Your task to perform on an android device: turn on javascript in the chrome app Image 0: 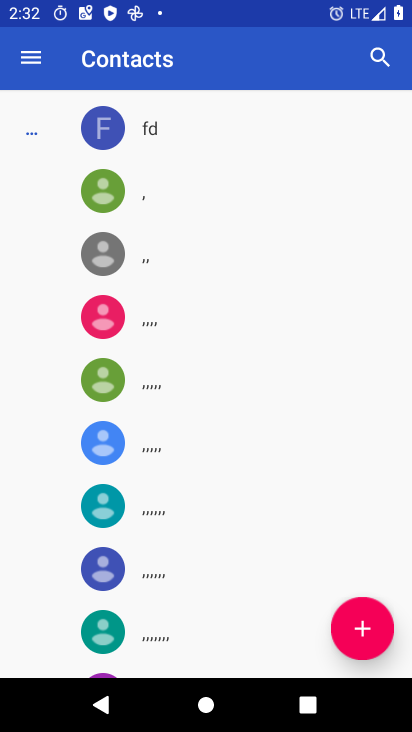
Step 0: press home button
Your task to perform on an android device: turn on javascript in the chrome app Image 1: 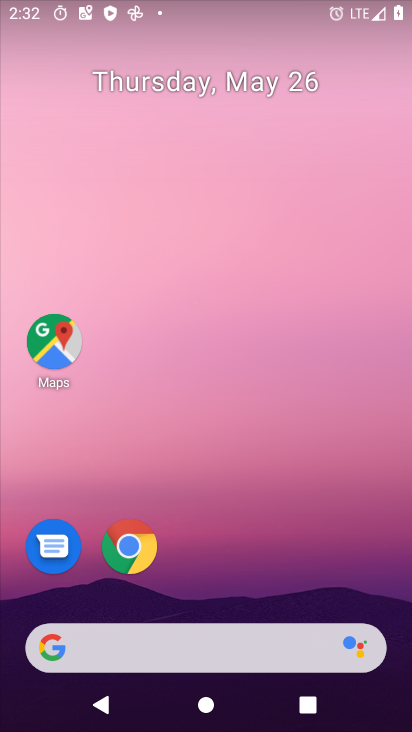
Step 1: click (129, 545)
Your task to perform on an android device: turn on javascript in the chrome app Image 2: 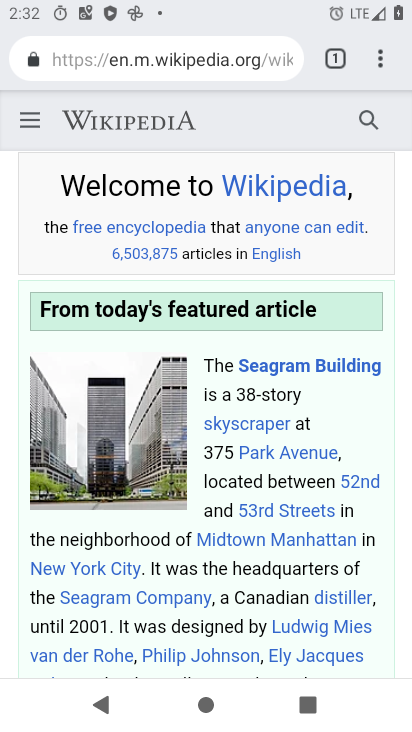
Step 2: click (370, 59)
Your task to perform on an android device: turn on javascript in the chrome app Image 3: 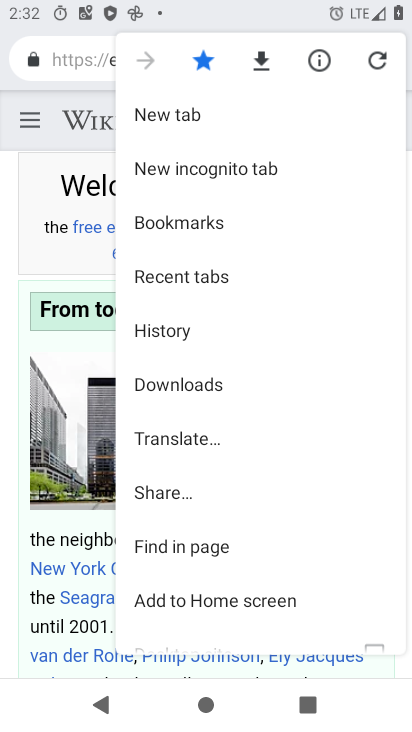
Step 3: drag from (270, 542) to (303, 279)
Your task to perform on an android device: turn on javascript in the chrome app Image 4: 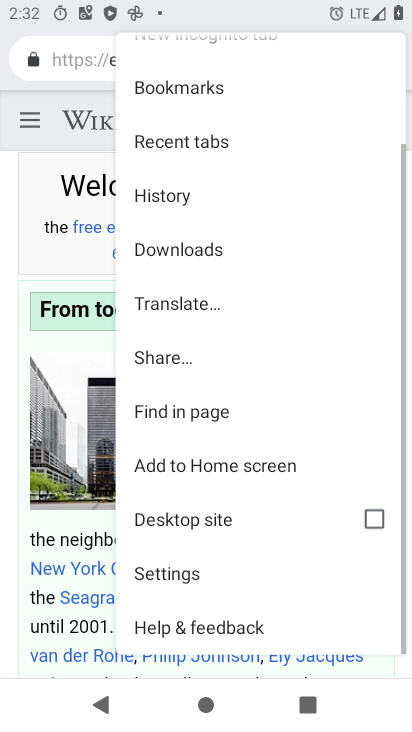
Step 4: click (186, 563)
Your task to perform on an android device: turn on javascript in the chrome app Image 5: 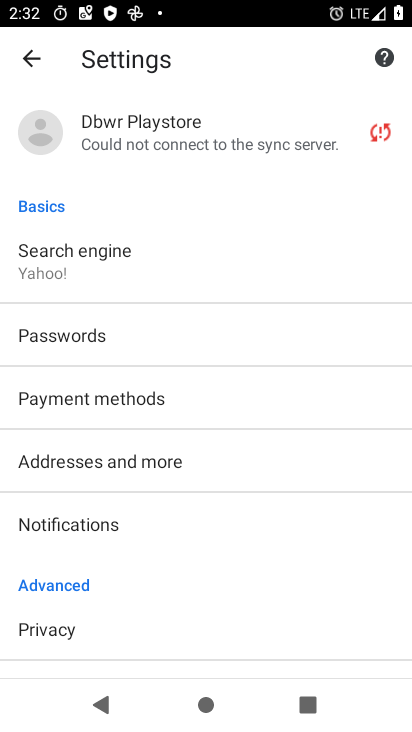
Step 5: drag from (179, 660) to (220, 291)
Your task to perform on an android device: turn on javascript in the chrome app Image 6: 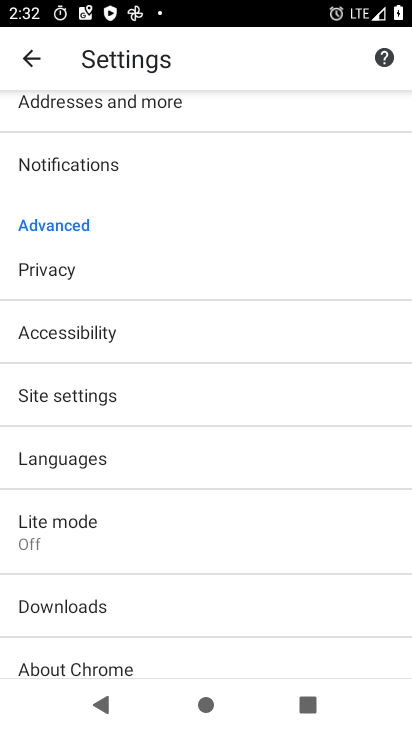
Step 6: click (101, 399)
Your task to perform on an android device: turn on javascript in the chrome app Image 7: 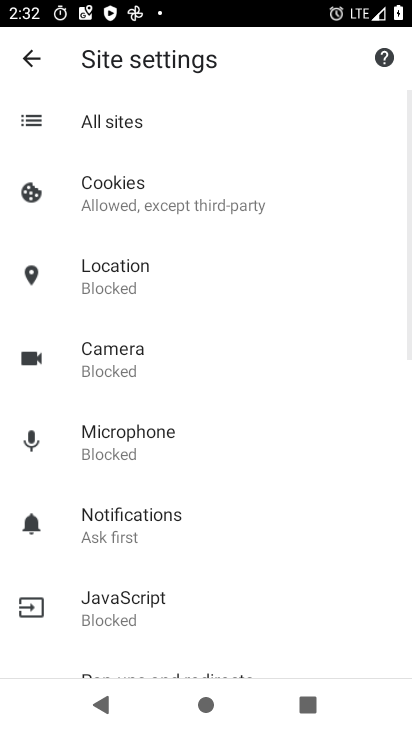
Step 7: click (158, 618)
Your task to perform on an android device: turn on javascript in the chrome app Image 8: 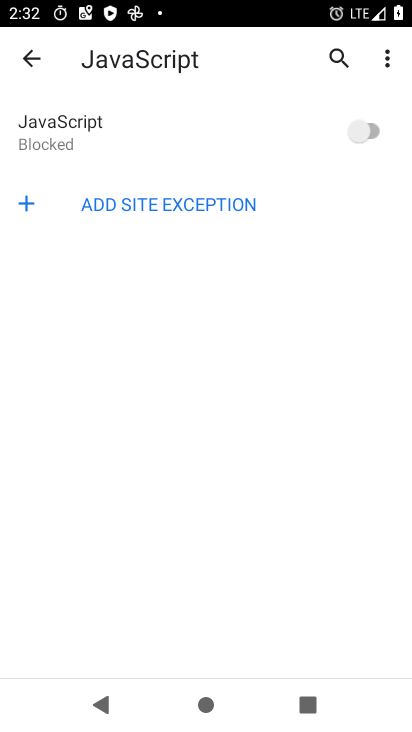
Step 8: click (384, 126)
Your task to perform on an android device: turn on javascript in the chrome app Image 9: 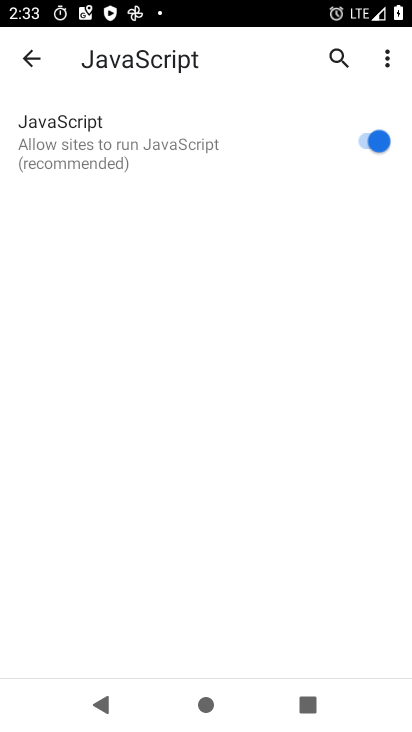
Step 9: task complete